Your task to perform on an android device: Open Chrome and go to settings Image 0: 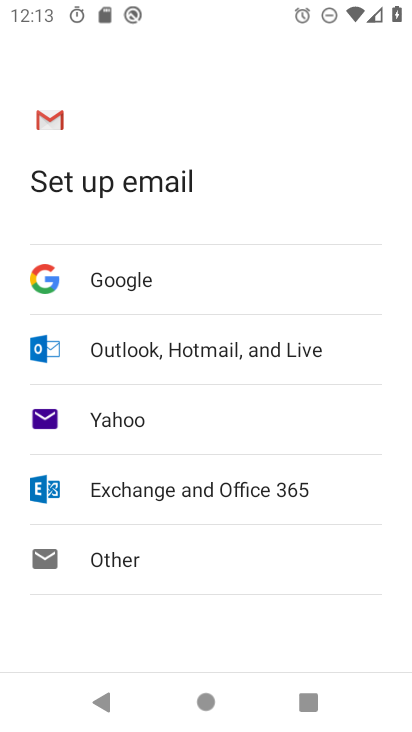
Step 0: press home button
Your task to perform on an android device: Open Chrome and go to settings Image 1: 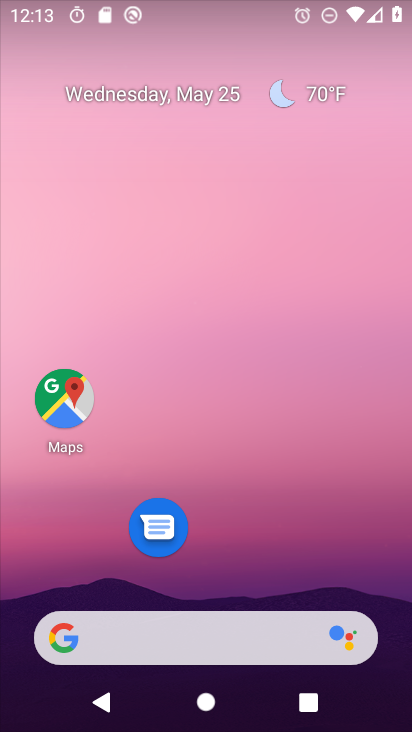
Step 1: drag from (282, 524) to (273, 95)
Your task to perform on an android device: Open Chrome and go to settings Image 2: 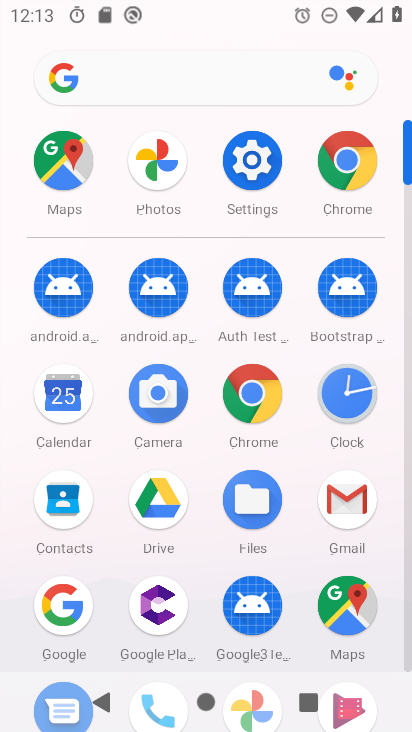
Step 2: click (340, 159)
Your task to perform on an android device: Open Chrome and go to settings Image 3: 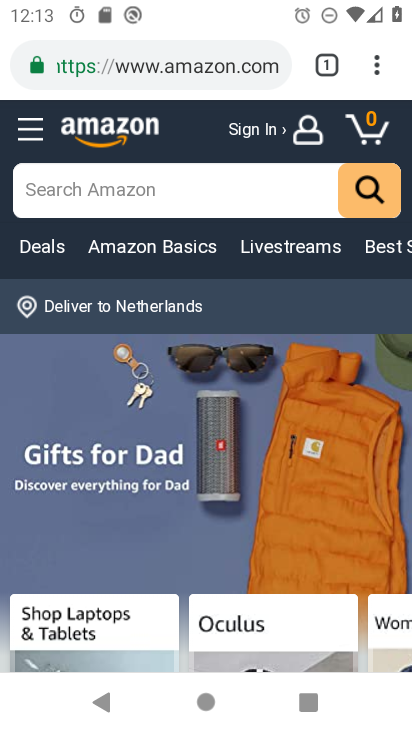
Step 3: click (371, 68)
Your task to perform on an android device: Open Chrome and go to settings Image 4: 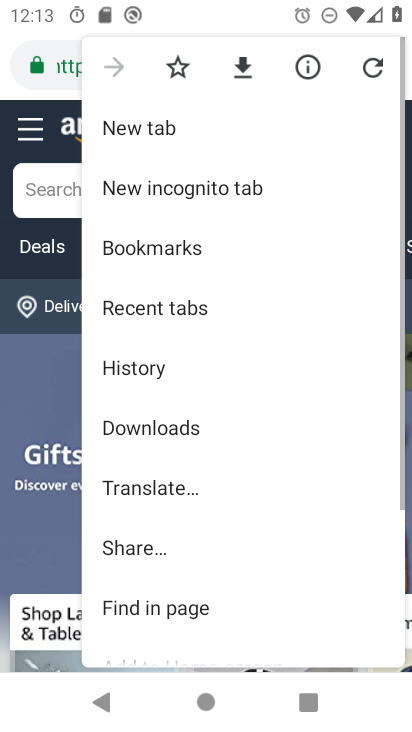
Step 4: drag from (226, 489) to (222, 180)
Your task to perform on an android device: Open Chrome and go to settings Image 5: 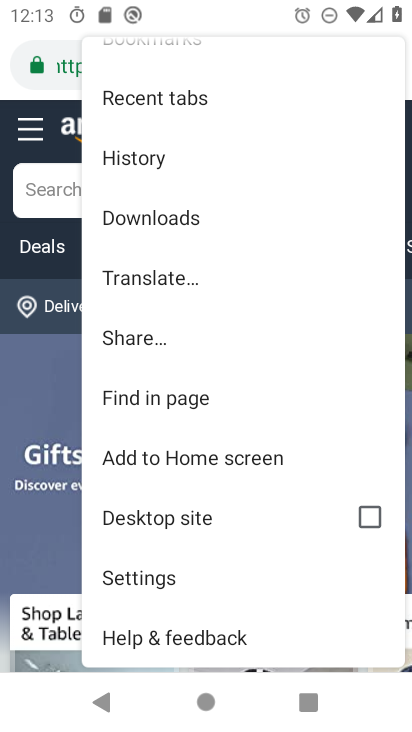
Step 5: click (162, 578)
Your task to perform on an android device: Open Chrome and go to settings Image 6: 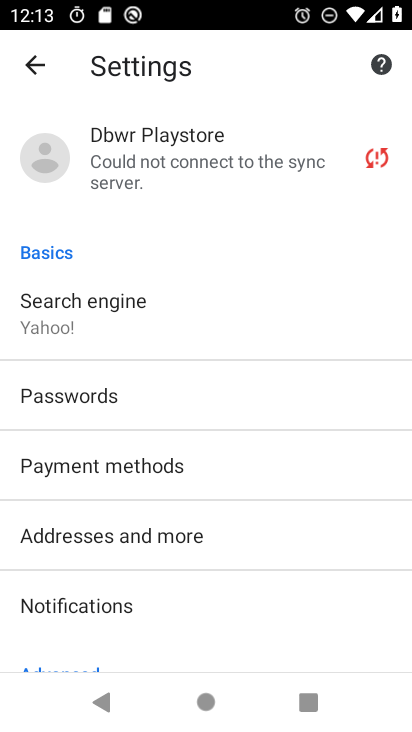
Step 6: task complete